Your task to perform on an android device: turn pop-ups off in chrome Image 0: 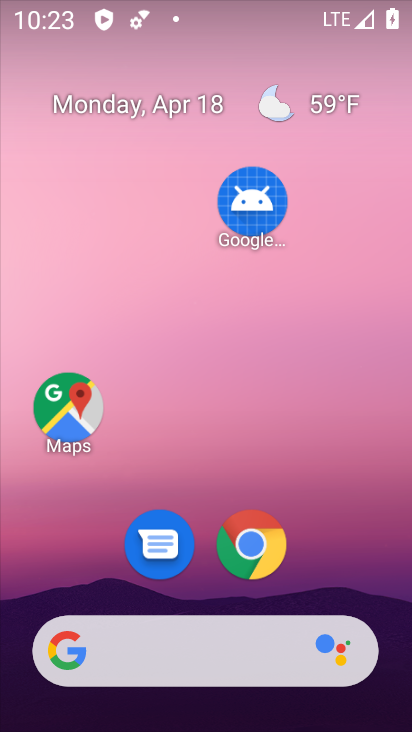
Step 0: drag from (308, 563) to (364, 235)
Your task to perform on an android device: turn pop-ups off in chrome Image 1: 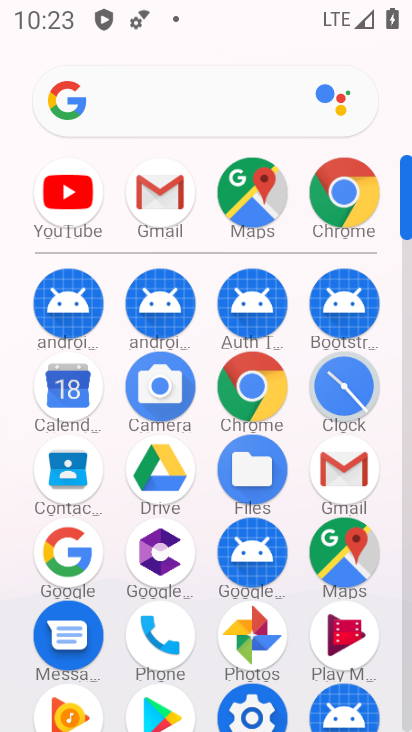
Step 1: click (326, 179)
Your task to perform on an android device: turn pop-ups off in chrome Image 2: 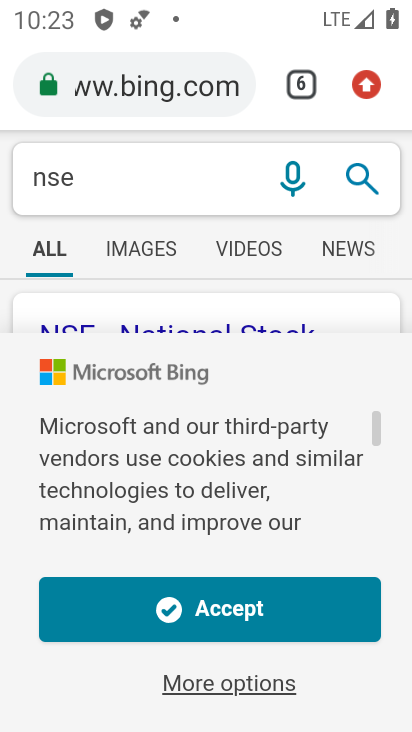
Step 2: click (381, 79)
Your task to perform on an android device: turn pop-ups off in chrome Image 3: 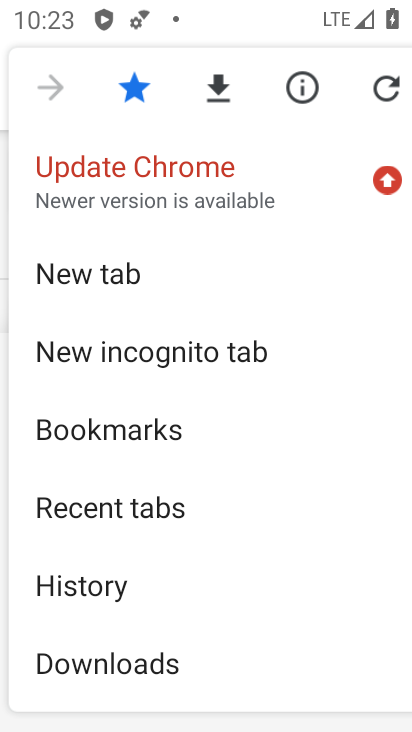
Step 3: drag from (215, 597) to (229, 142)
Your task to perform on an android device: turn pop-ups off in chrome Image 4: 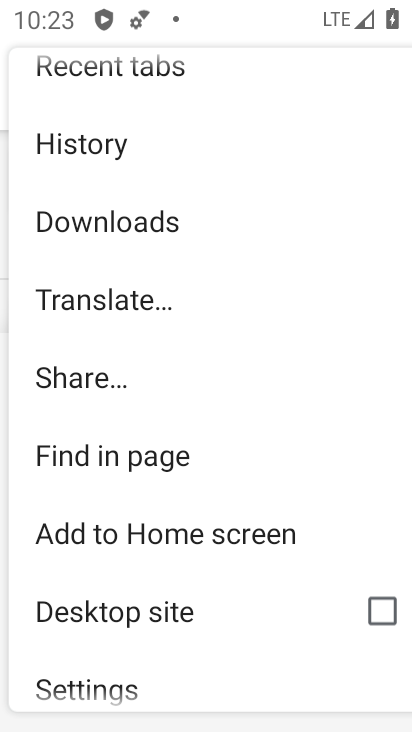
Step 4: drag from (173, 665) to (245, 314)
Your task to perform on an android device: turn pop-ups off in chrome Image 5: 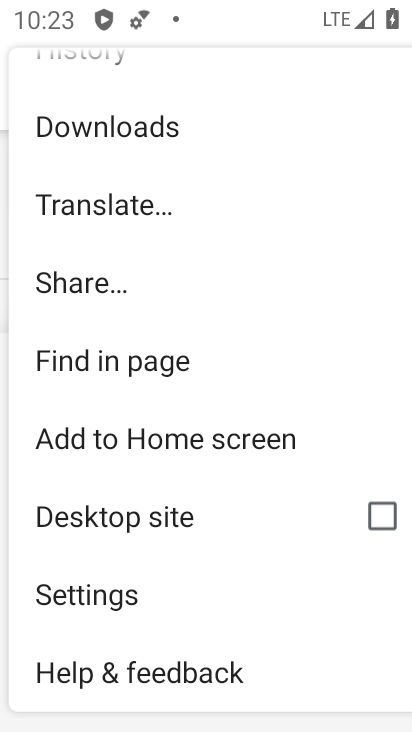
Step 5: click (91, 595)
Your task to perform on an android device: turn pop-ups off in chrome Image 6: 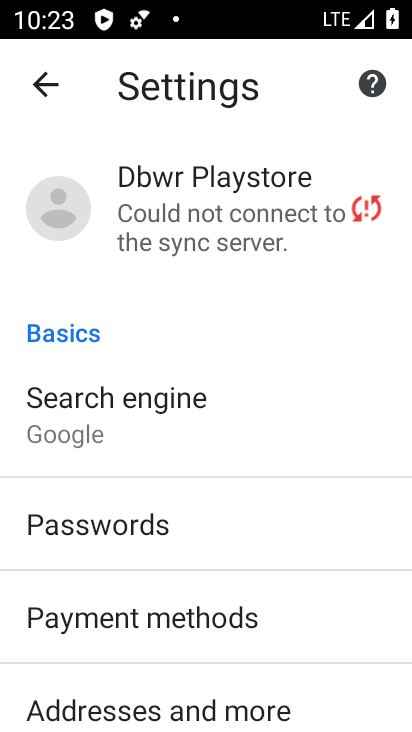
Step 6: drag from (211, 642) to (276, 264)
Your task to perform on an android device: turn pop-ups off in chrome Image 7: 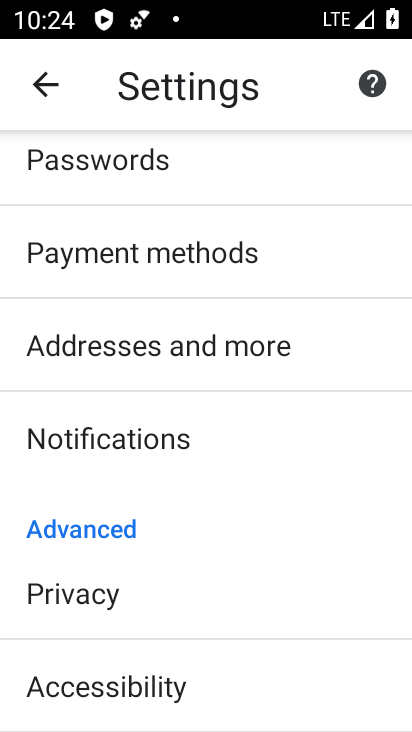
Step 7: drag from (184, 668) to (264, 252)
Your task to perform on an android device: turn pop-ups off in chrome Image 8: 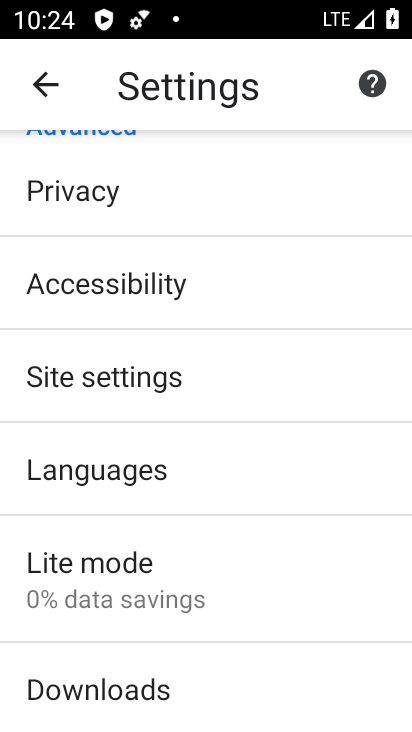
Step 8: click (155, 375)
Your task to perform on an android device: turn pop-ups off in chrome Image 9: 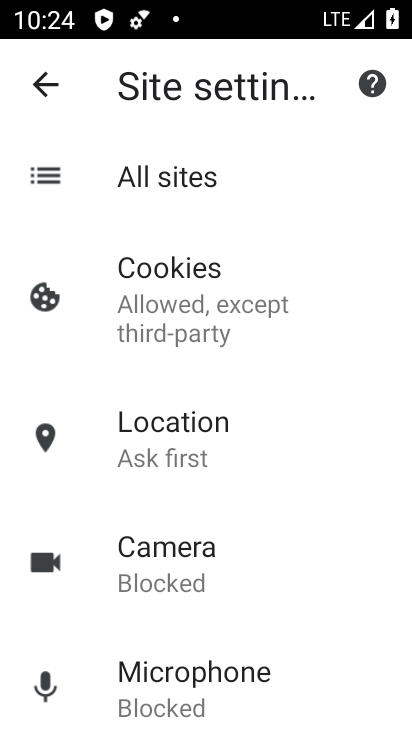
Step 9: drag from (296, 649) to (309, 197)
Your task to perform on an android device: turn pop-ups off in chrome Image 10: 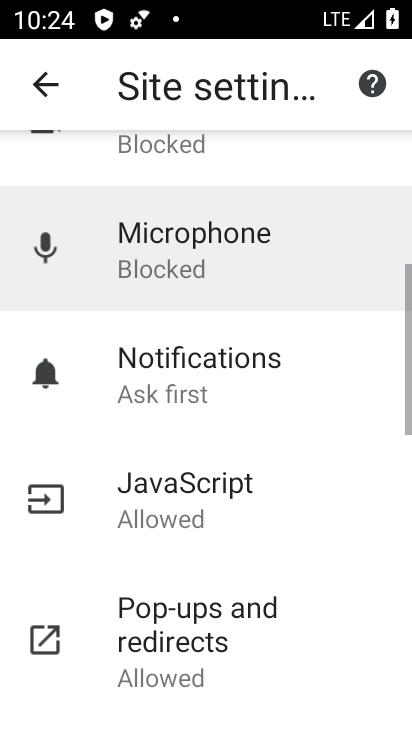
Step 10: drag from (296, 546) to (302, 216)
Your task to perform on an android device: turn pop-ups off in chrome Image 11: 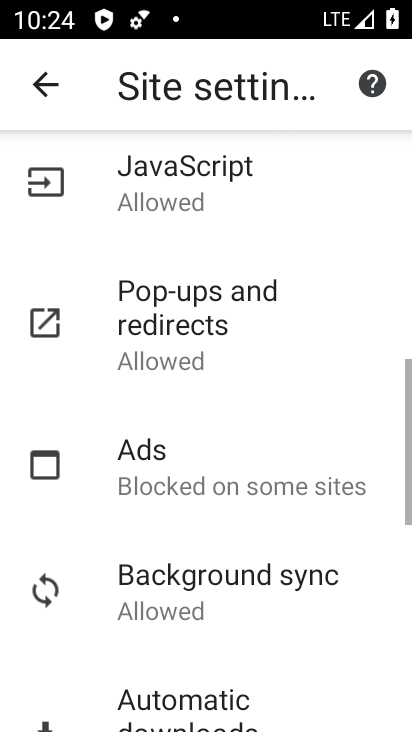
Step 11: click (167, 632)
Your task to perform on an android device: turn pop-ups off in chrome Image 12: 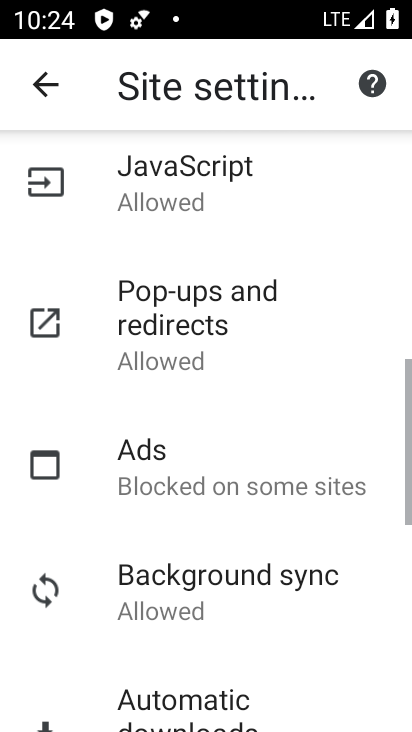
Step 12: drag from (168, 622) to (201, 319)
Your task to perform on an android device: turn pop-ups off in chrome Image 13: 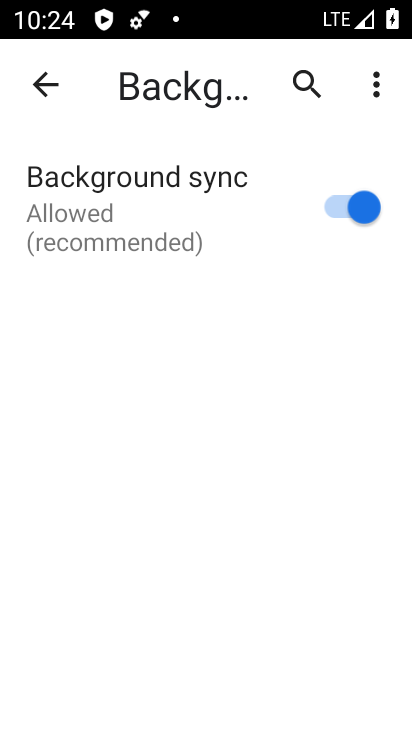
Step 13: press back button
Your task to perform on an android device: turn pop-ups off in chrome Image 14: 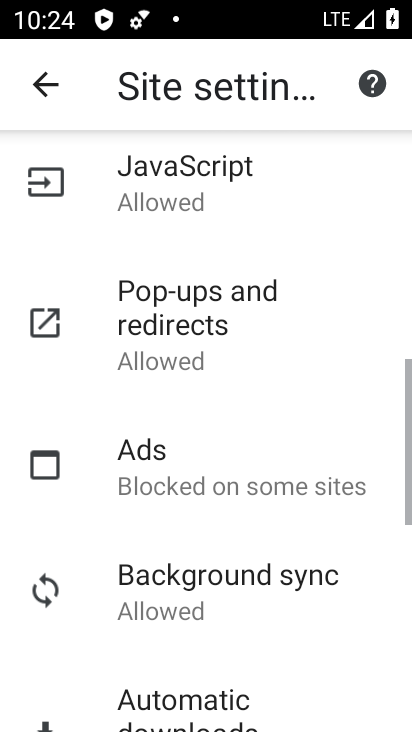
Step 14: click (180, 328)
Your task to perform on an android device: turn pop-ups off in chrome Image 15: 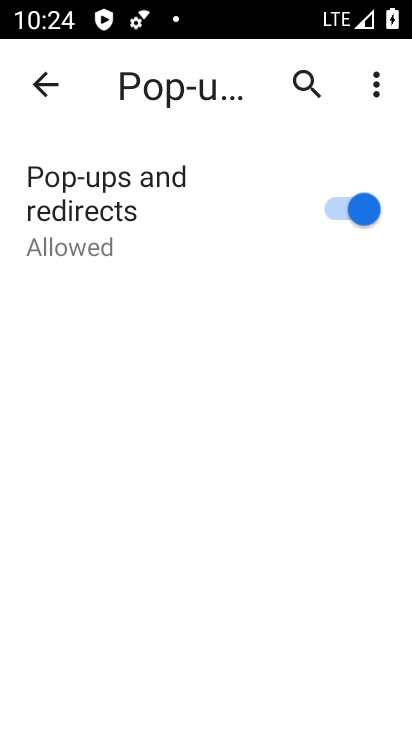
Step 15: click (344, 211)
Your task to perform on an android device: turn pop-ups off in chrome Image 16: 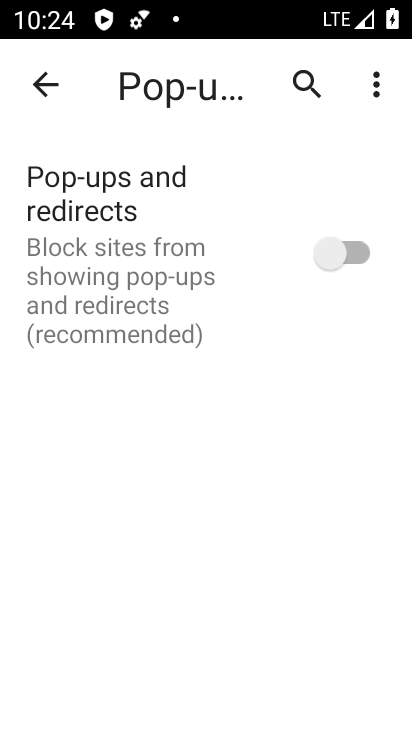
Step 16: task complete